Your task to perform on an android device: Open sound settings Image 0: 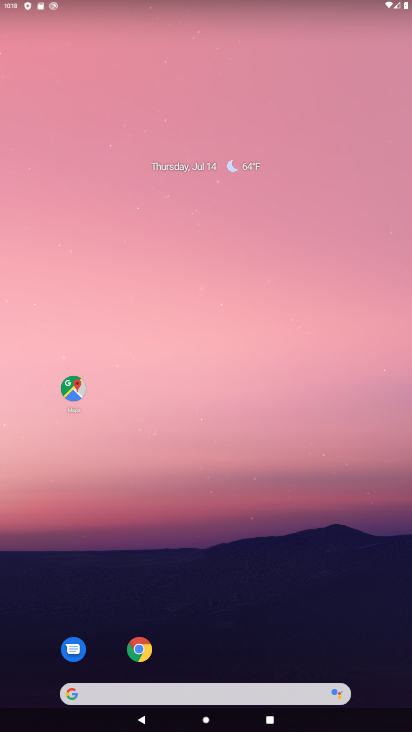
Step 0: drag from (250, 624) to (259, 225)
Your task to perform on an android device: Open sound settings Image 1: 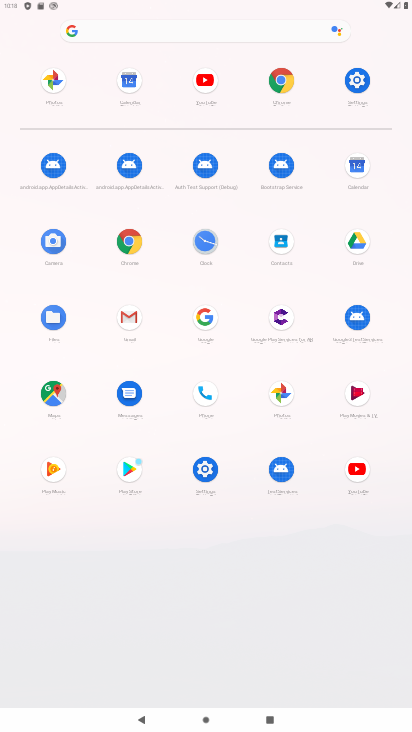
Step 1: click (201, 471)
Your task to perform on an android device: Open sound settings Image 2: 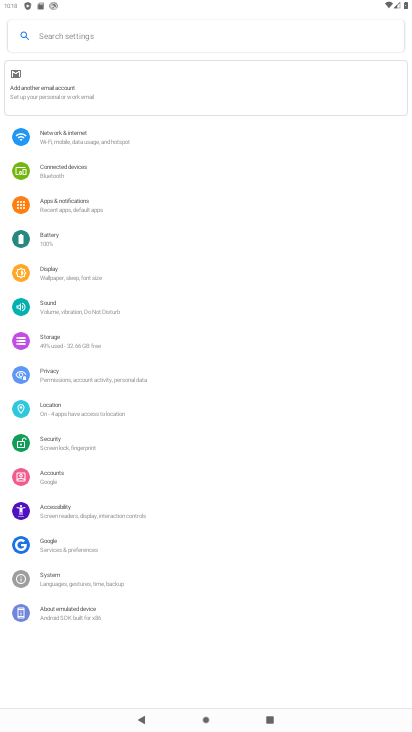
Step 2: click (43, 298)
Your task to perform on an android device: Open sound settings Image 3: 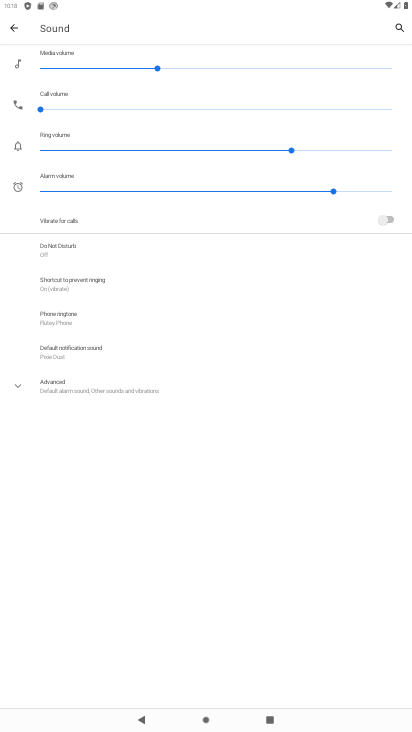
Step 3: task complete